Your task to perform on an android device: Open the map Image 0: 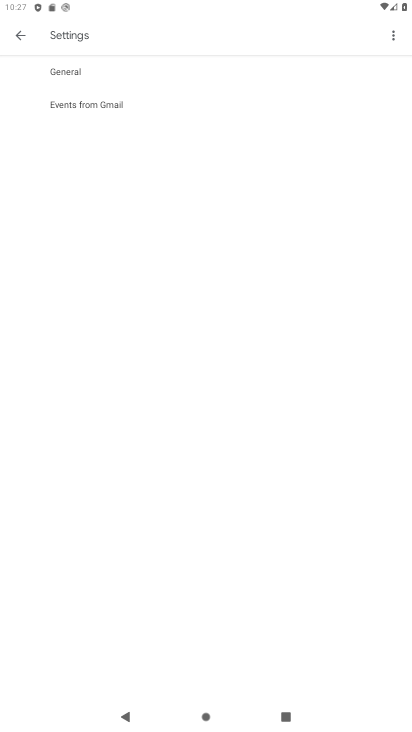
Step 0: press home button
Your task to perform on an android device: Open the map Image 1: 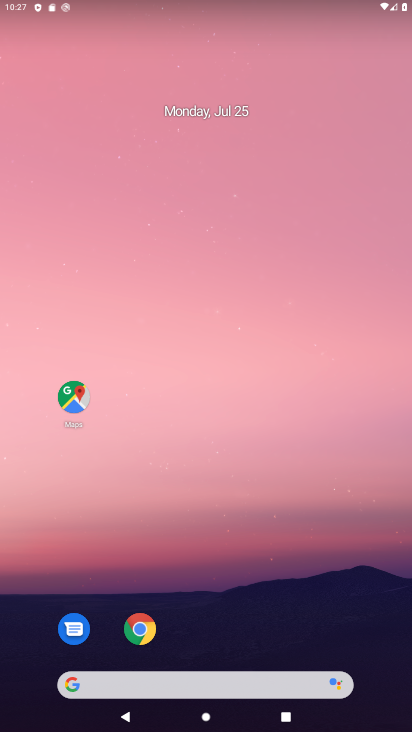
Step 1: click (72, 391)
Your task to perform on an android device: Open the map Image 2: 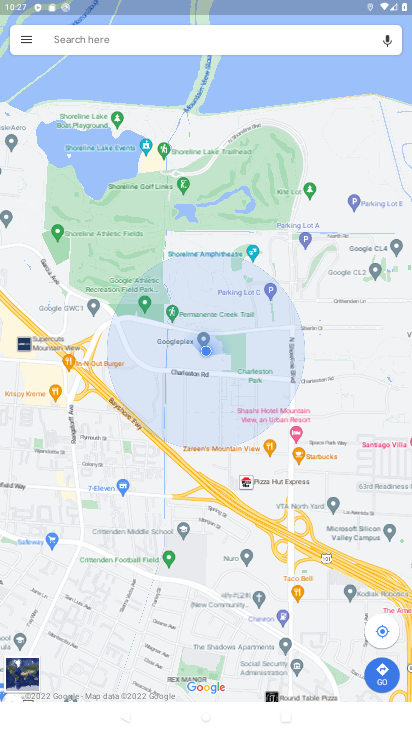
Step 2: task complete